Your task to perform on an android device: Check the weather Image 0: 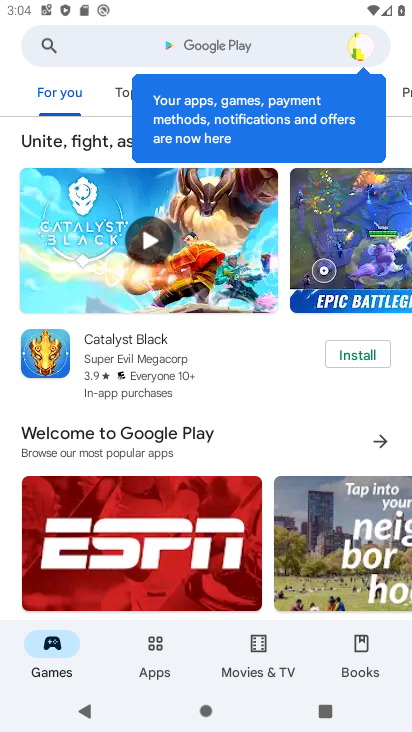
Step 0: press back button
Your task to perform on an android device: Check the weather Image 1: 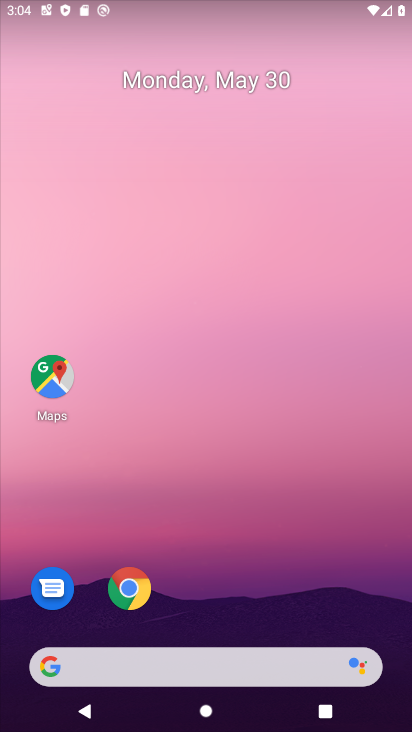
Step 1: drag from (258, 569) to (196, 5)
Your task to perform on an android device: Check the weather Image 2: 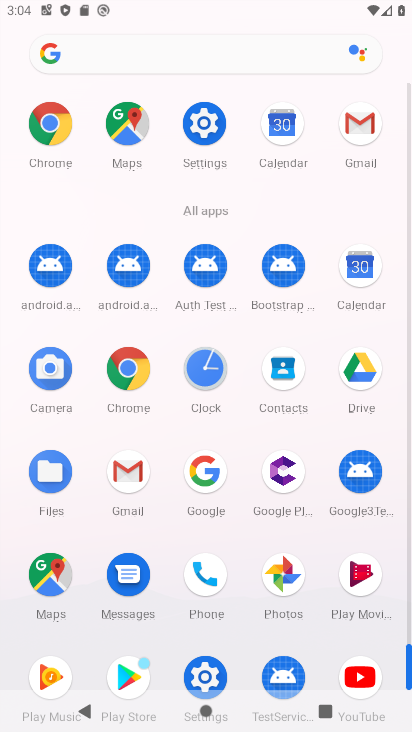
Step 2: drag from (2, 530) to (10, 192)
Your task to perform on an android device: Check the weather Image 3: 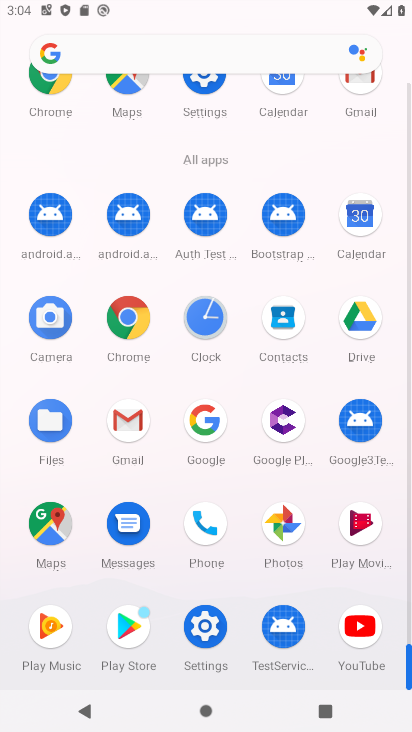
Step 3: click (124, 317)
Your task to perform on an android device: Check the weather Image 4: 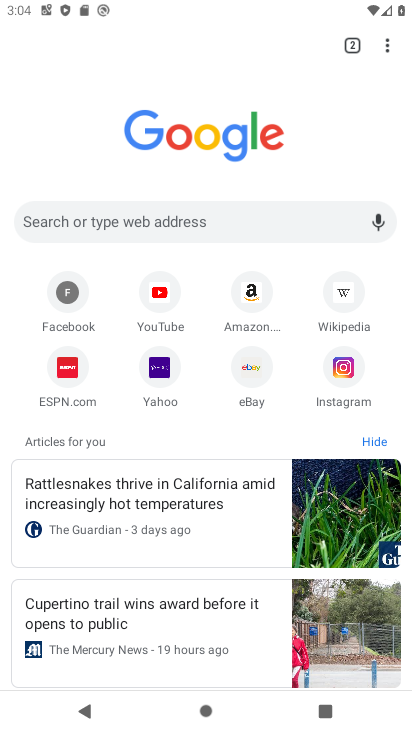
Step 4: click (111, 226)
Your task to perform on an android device: Check the weather Image 5: 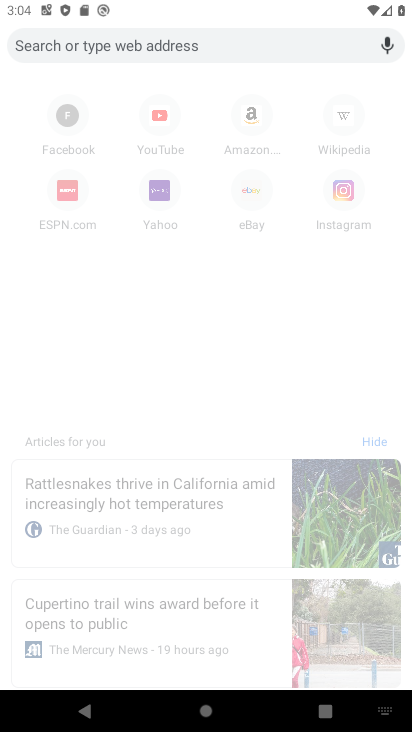
Step 5: type "Check the weather"
Your task to perform on an android device: Check the weather Image 6: 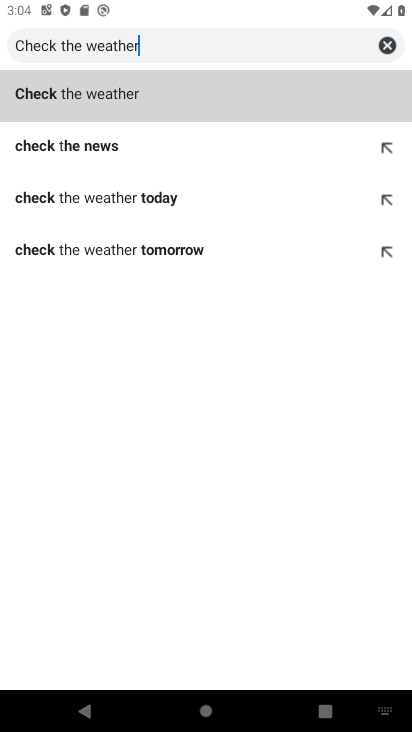
Step 6: type ""
Your task to perform on an android device: Check the weather Image 7: 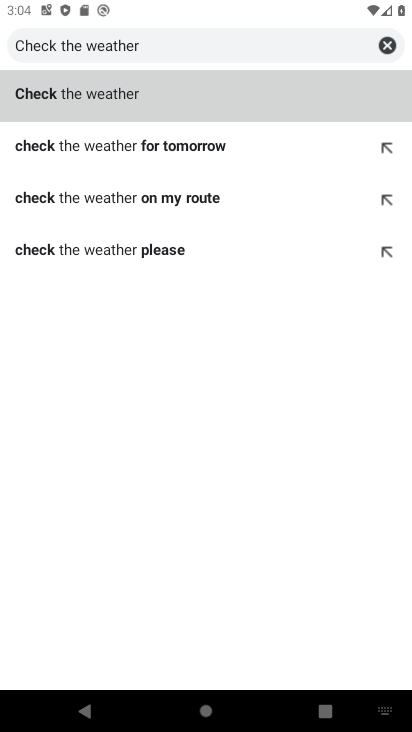
Step 7: click (182, 100)
Your task to perform on an android device: Check the weather Image 8: 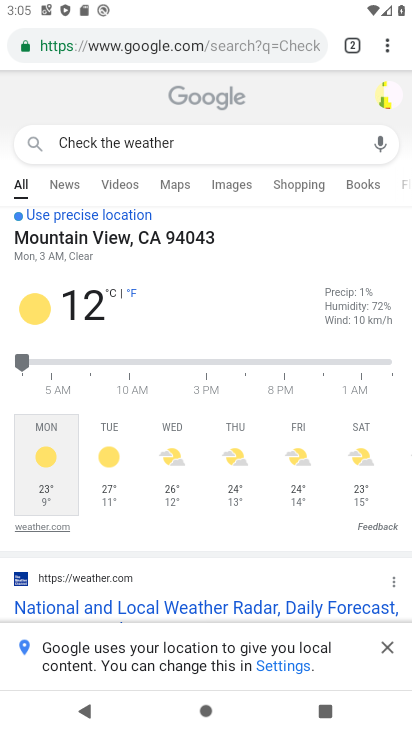
Step 8: task complete